Your task to perform on an android device: make emails show in primary in the gmail app Image 0: 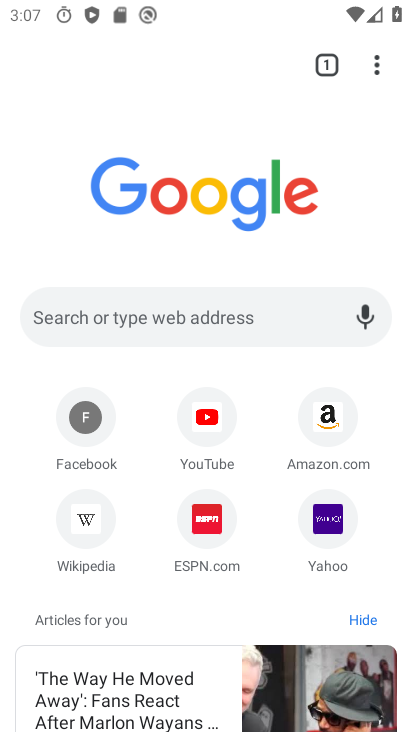
Step 0: press home button
Your task to perform on an android device: make emails show in primary in the gmail app Image 1: 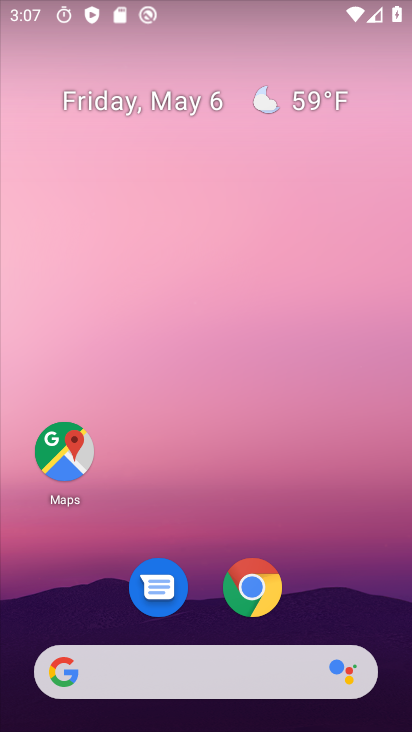
Step 1: drag from (252, 461) to (315, 65)
Your task to perform on an android device: make emails show in primary in the gmail app Image 2: 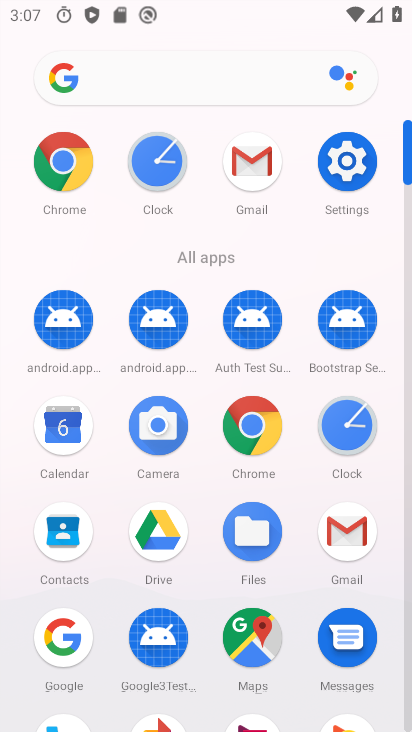
Step 2: click (252, 152)
Your task to perform on an android device: make emails show in primary in the gmail app Image 3: 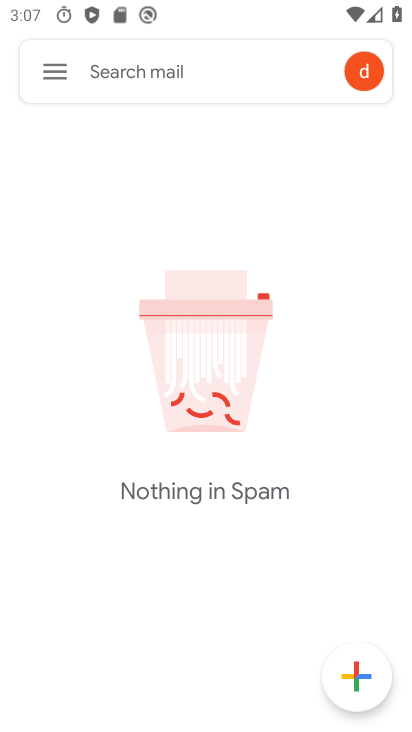
Step 3: click (54, 70)
Your task to perform on an android device: make emails show in primary in the gmail app Image 4: 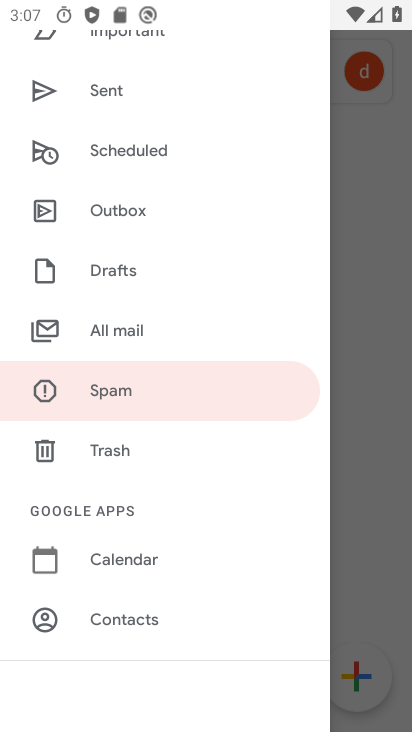
Step 4: drag from (167, 594) to (218, 135)
Your task to perform on an android device: make emails show in primary in the gmail app Image 5: 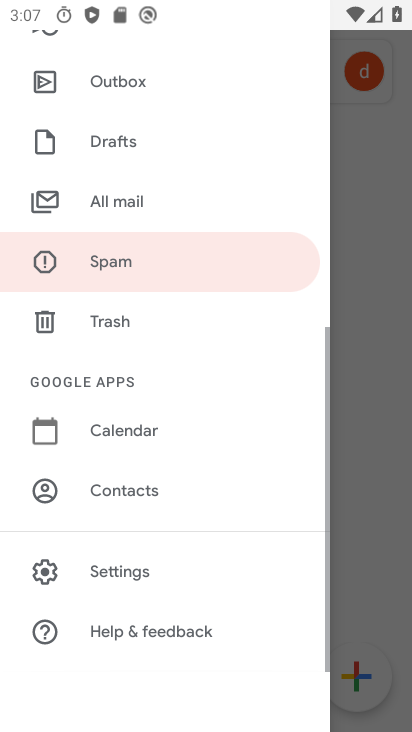
Step 5: click (132, 566)
Your task to perform on an android device: make emails show in primary in the gmail app Image 6: 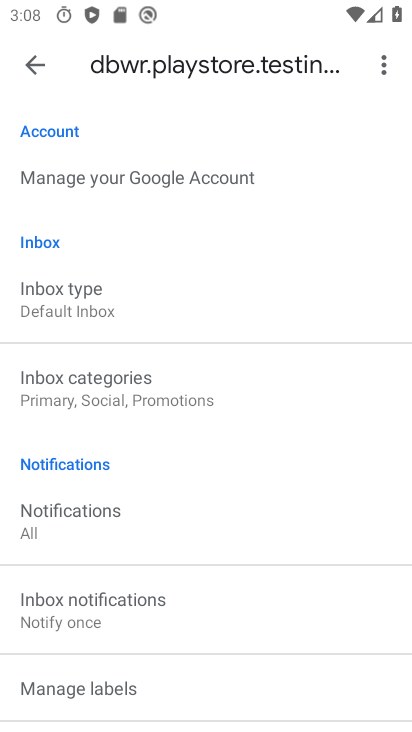
Step 6: click (121, 388)
Your task to perform on an android device: make emails show in primary in the gmail app Image 7: 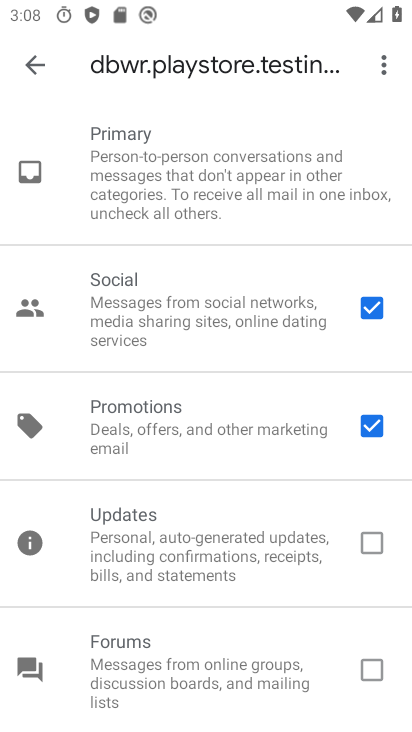
Step 7: click (367, 424)
Your task to perform on an android device: make emails show in primary in the gmail app Image 8: 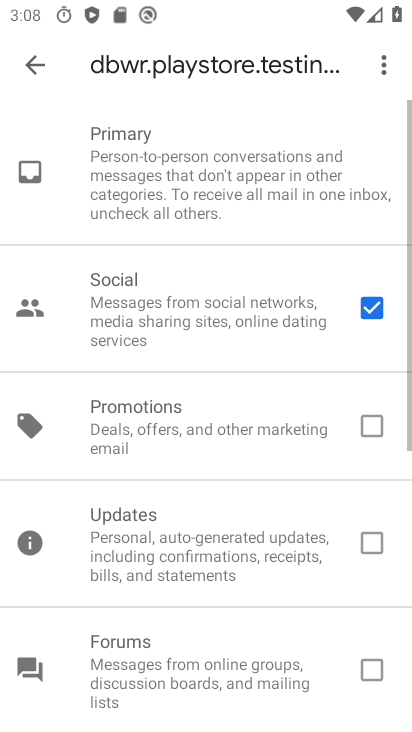
Step 8: click (369, 308)
Your task to perform on an android device: make emails show in primary in the gmail app Image 9: 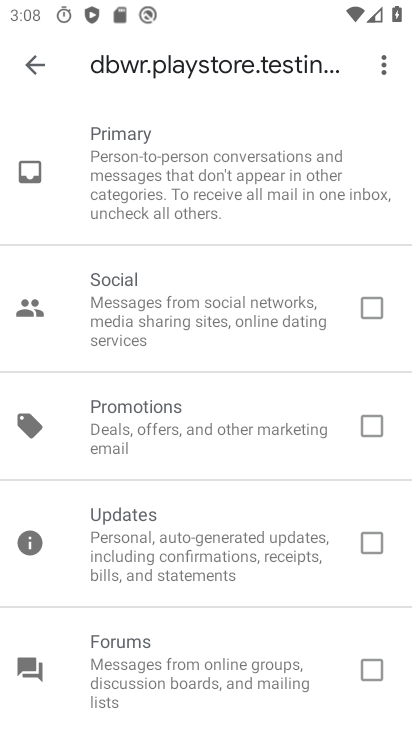
Step 9: click (38, 62)
Your task to perform on an android device: make emails show in primary in the gmail app Image 10: 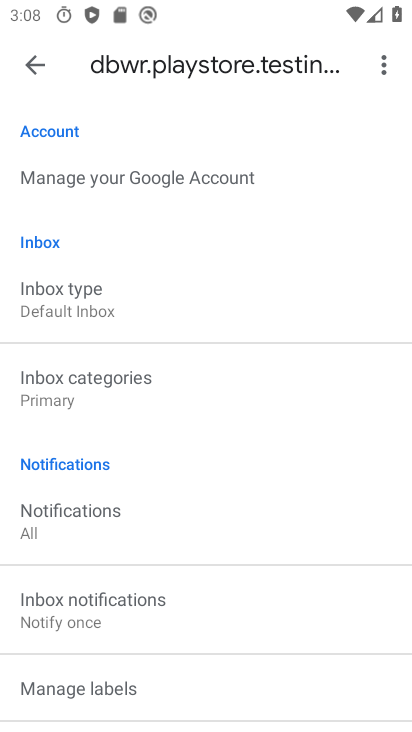
Step 10: task complete